Your task to perform on an android device: see creations saved in the google photos Image 0: 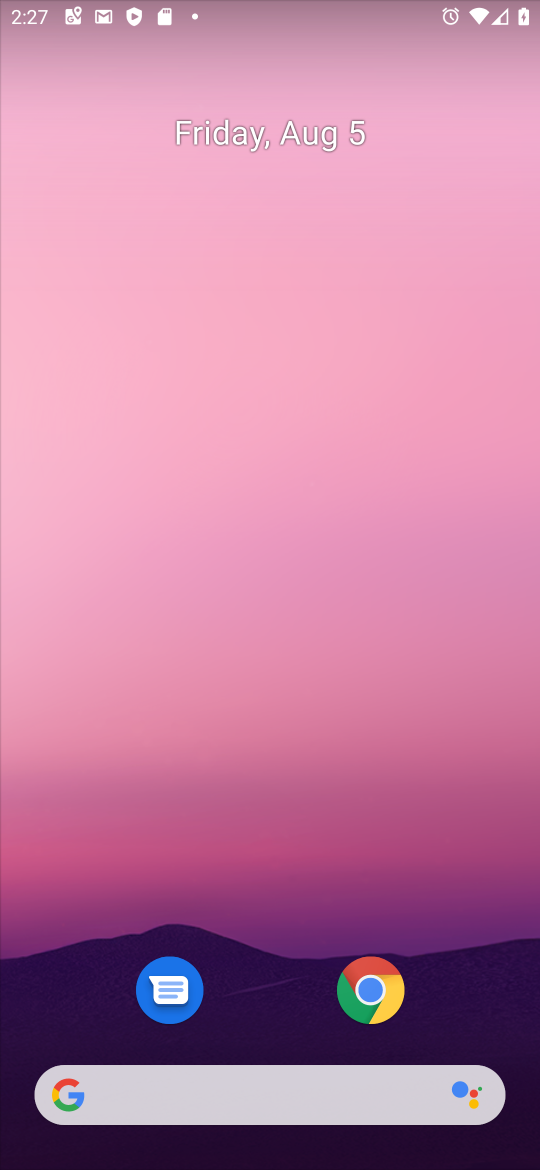
Step 0: drag from (285, 1107) to (382, 616)
Your task to perform on an android device: see creations saved in the google photos Image 1: 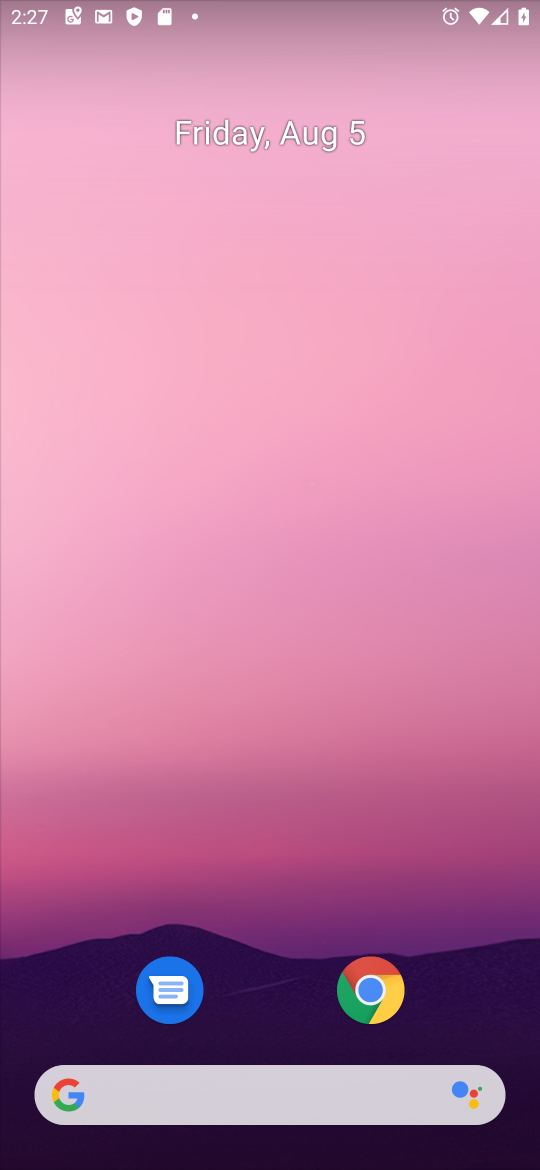
Step 1: drag from (283, 1118) to (344, 402)
Your task to perform on an android device: see creations saved in the google photos Image 2: 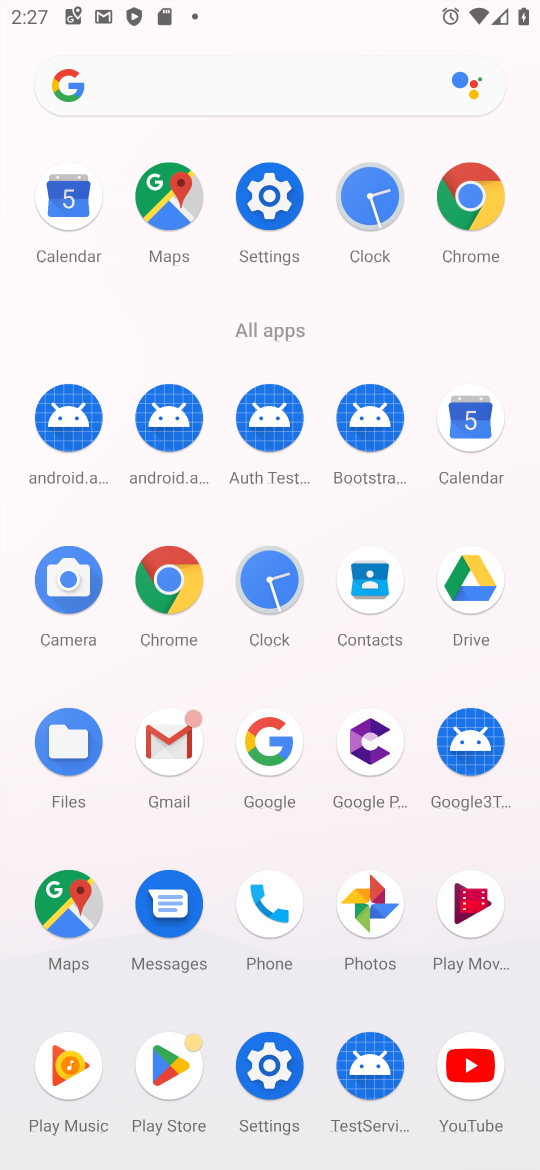
Step 2: click (368, 920)
Your task to perform on an android device: see creations saved in the google photos Image 3: 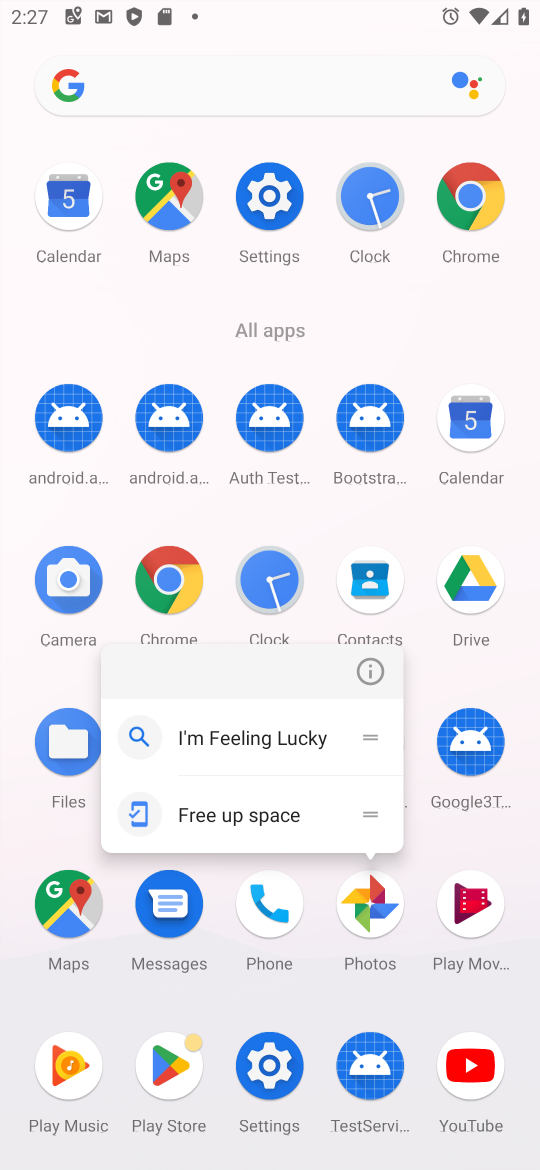
Step 3: click (386, 909)
Your task to perform on an android device: see creations saved in the google photos Image 4: 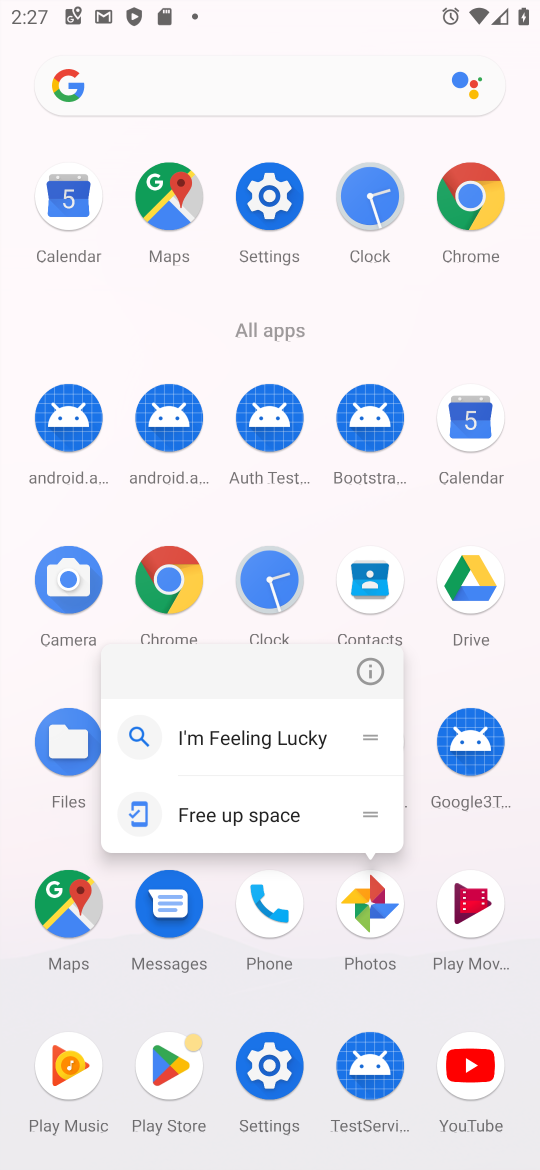
Step 4: click (353, 912)
Your task to perform on an android device: see creations saved in the google photos Image 5: 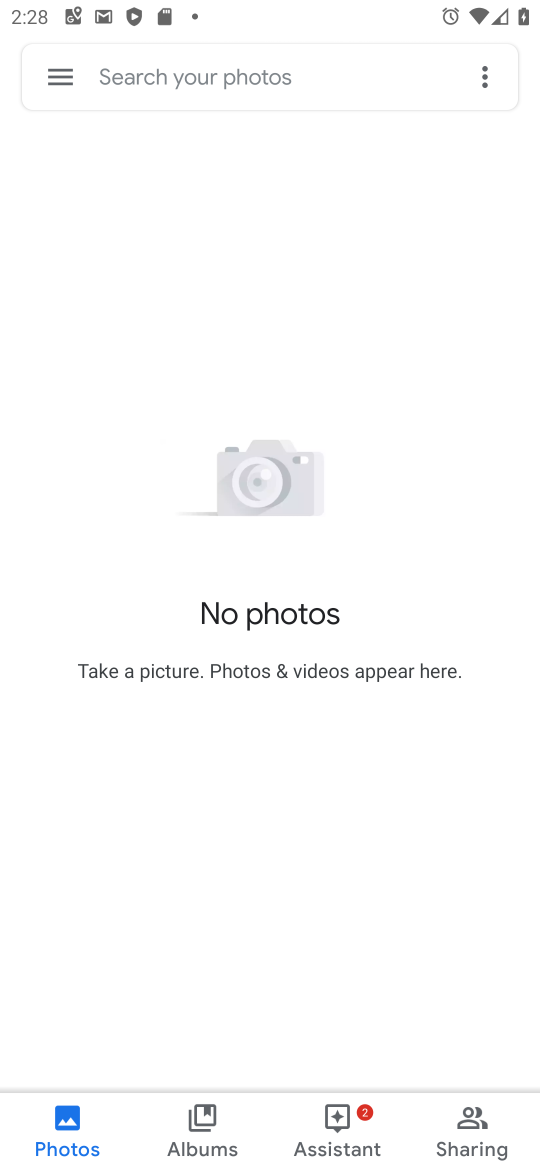
Step 5: click (369, 1122)
Your task to perform on an android device: see creations saved in the google photos Image 6: 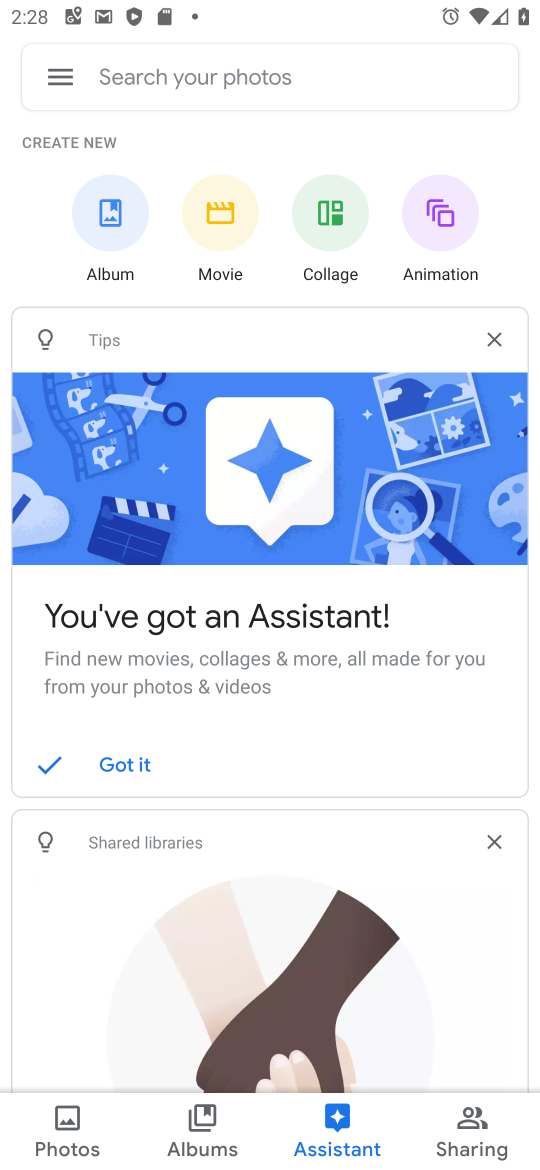
Step 6: task complete